Your task to perform on an android device: Open Android settings Image 0: 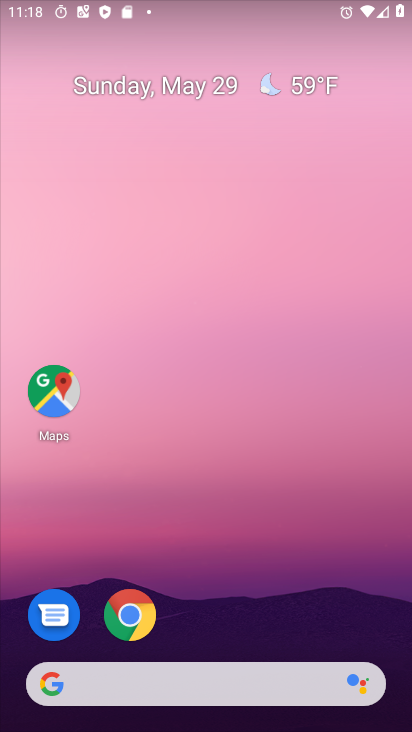
Step 0: drag from (240, 580) to (299, 19)
Your task to perform on an android device: Open Android settings Image 1: 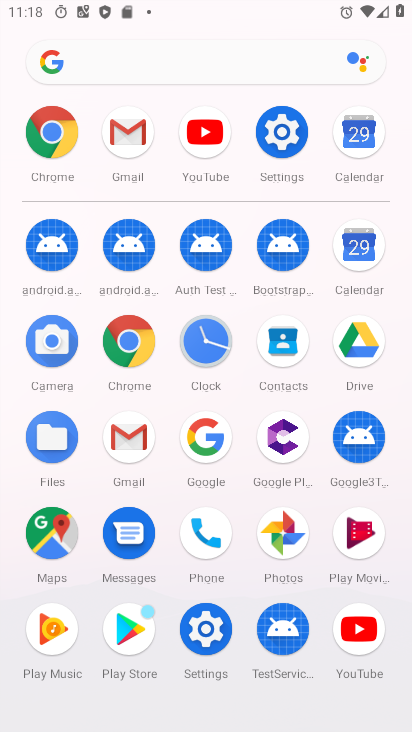
Step 1: click (281, 127)
Your task to perform on an android device: Open Android settings Image 2: 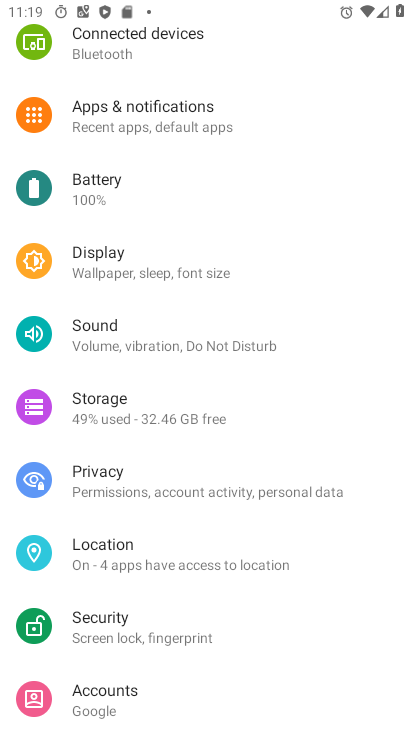
Step 2: task complete